Your task to perform on an android device: turn off data saver in the chrome app Image 0: 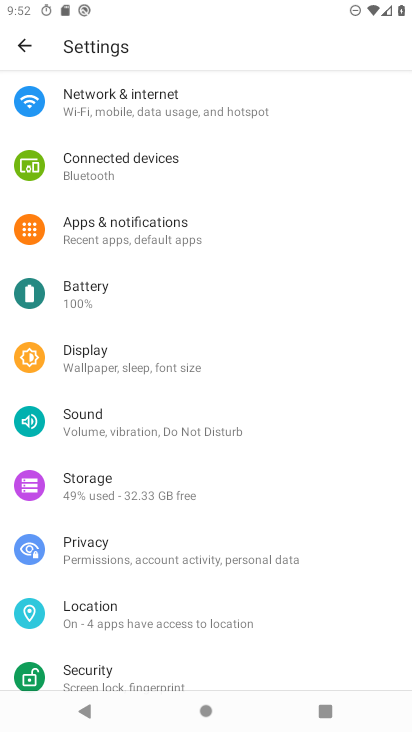
Step 0: press home button
Your task to perform on an android device: turn off data saver in the chrome app Image 1: 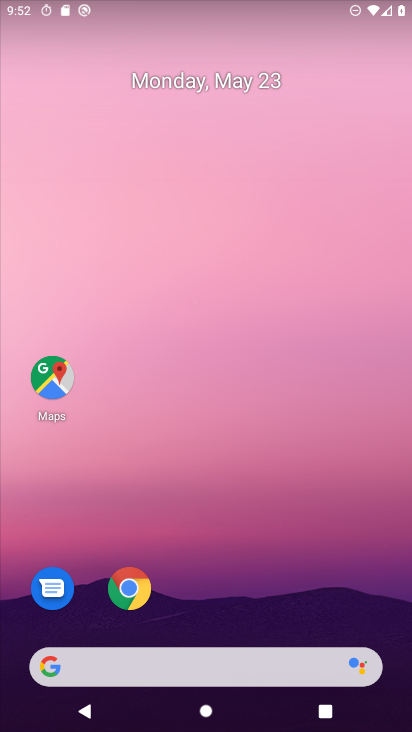
Step 1: click (124, 584)
Your task to perform on an android device: turn off data saver in the chrome app Image 2: 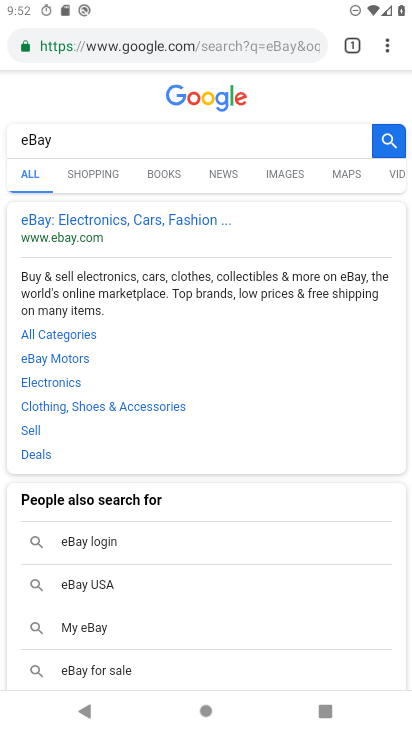
Step 2: click (385, 36)
Your task to perform on an android device: turn off data saver in the chrome app Image 3: 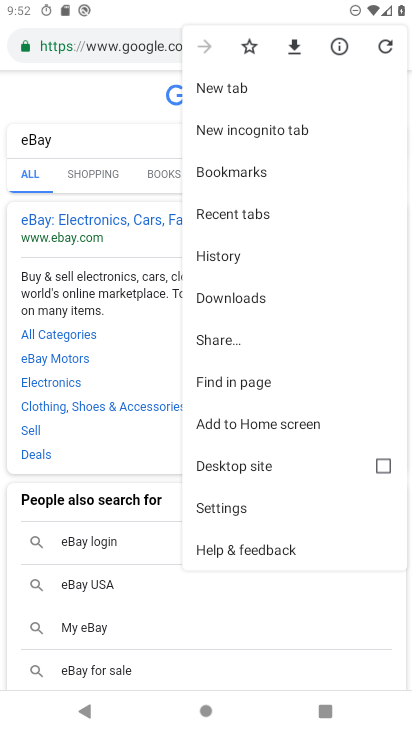
Step 3: click (241, 508)
Your task to perform on an android device: turn off data saver in the chrome app Image 4: 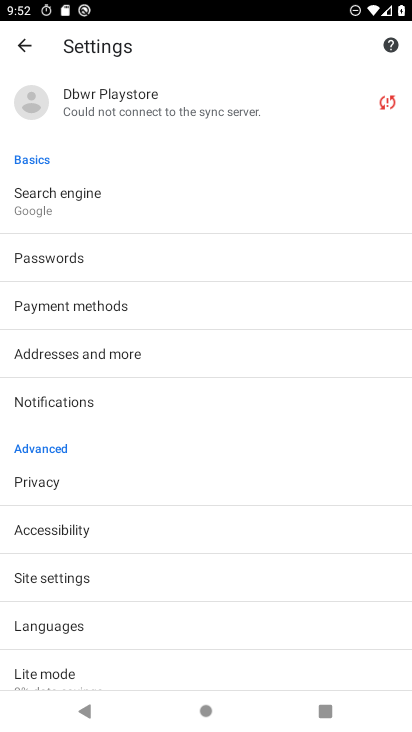
Step 4: click (82, 671)
Your task to perform on an android device: turn off data saver in the chrome app Image 5: 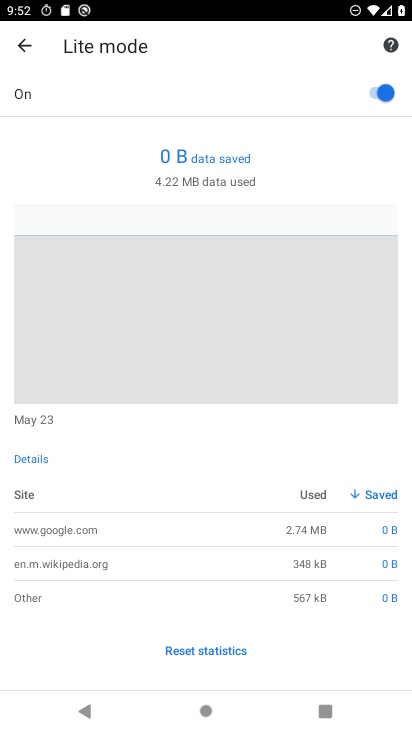
Step 5: click (372, 94)
Your task to perform on an android device: turn off data saver in the chrome app Image 6: 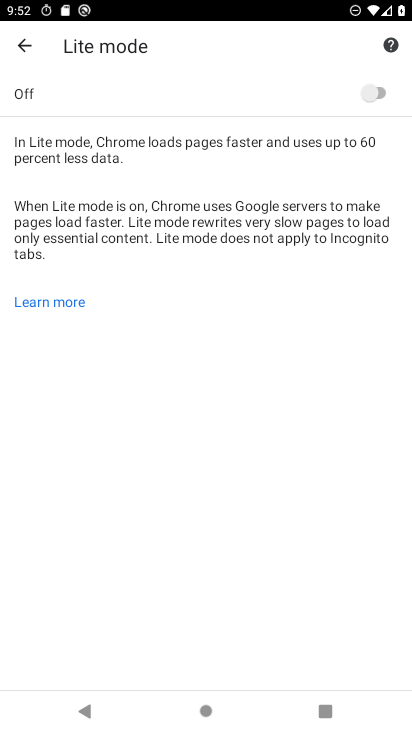
Step 6: task complete